Your task to perform on an android device: Clear the cart on costco. Add "razer blade" to the cart on costco, then select checkout. Image 0: 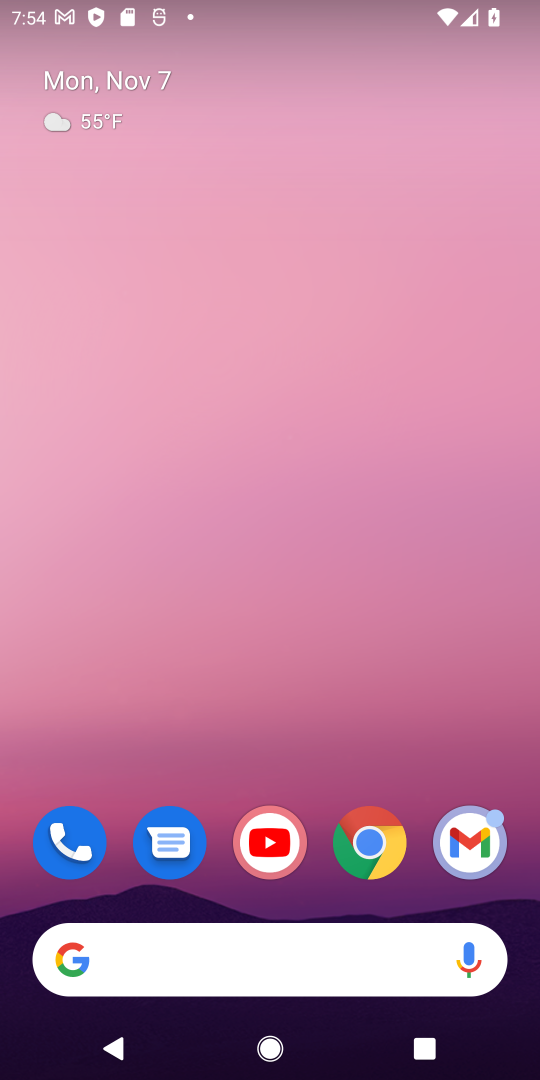
Step 0: press home button
Your task to perform on an android device: Clear the cart on costco. Add "razer blade" to the cart on costco, then select checkout. Image 1: 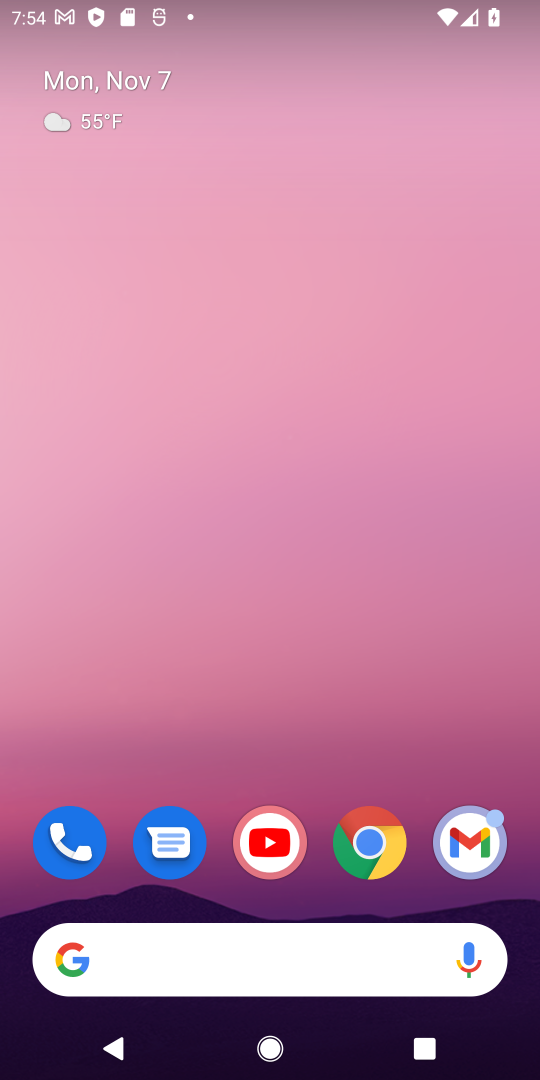
Step 1: click (374, 844)
Your task to perform on an android device: Clear the cart on costco. Add "razer blade" to the cart on costco, then select checkout. Image 2: 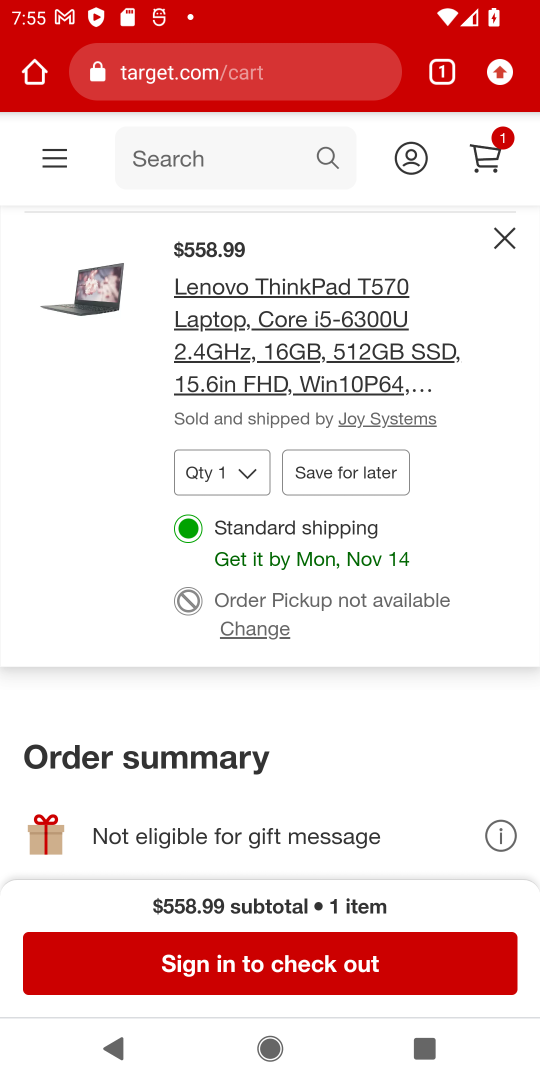
Step 2: click (193, 77)
Your task to perform on an android device: Clear the cart on costco. Add "razer blade" to the cart on costco, then select checkout. Image 3: 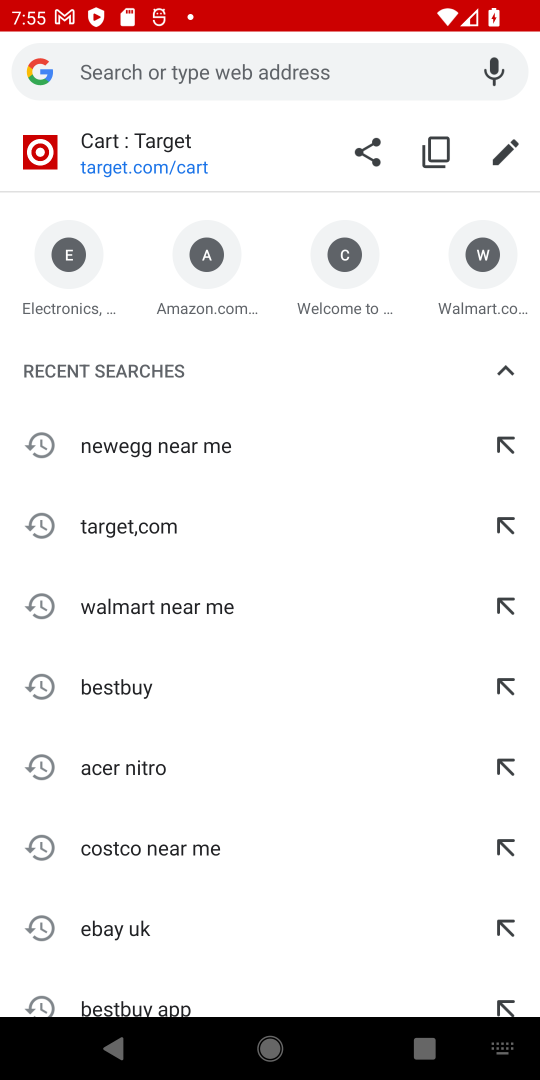
Step 3: type " costco"
Your task to perform on an android device: Clear the cart on costco. Add "razer blade" to the cart on costco, then select checkout. Image 4: 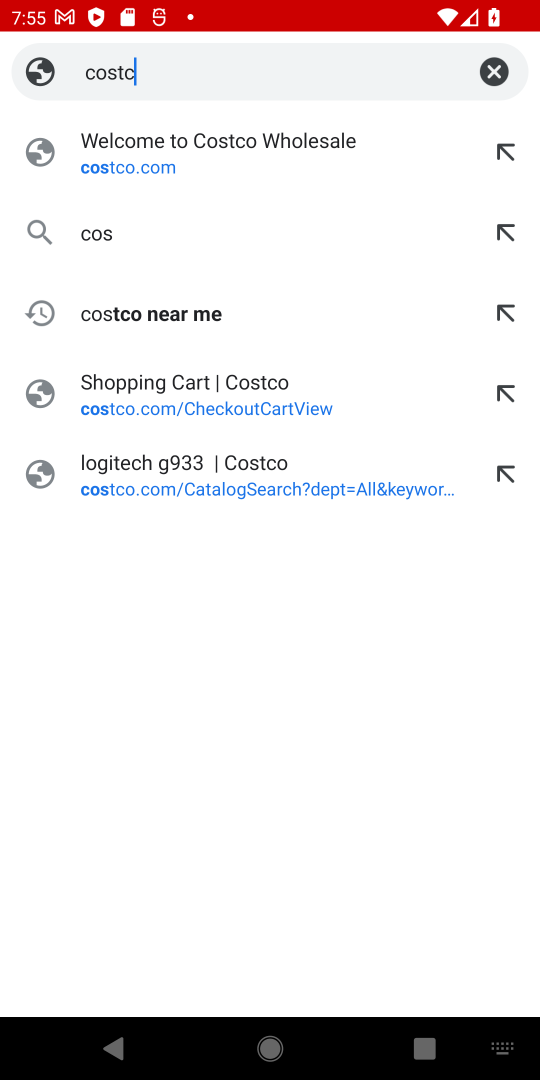
Step 4: press enter
Your task to perform on an android device: Clear the cart on costco. Add "razer blade" to the cart on costco, then select checkout. Image 5: 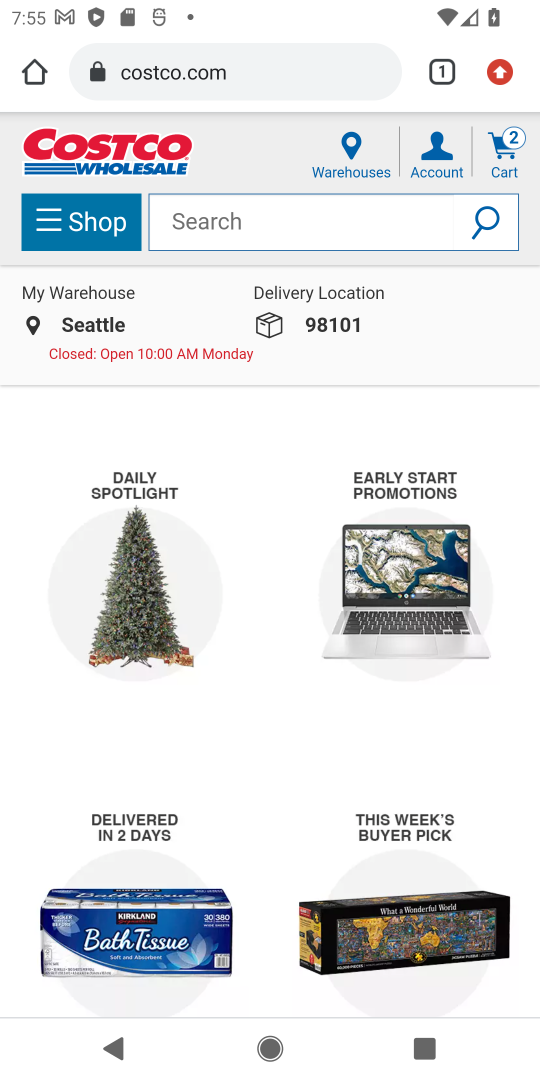
Step 5: click (285, 218)
Your task to perform on an android device: Clear the cart on costco. Add "razer blade" to the cart on costco, then select checkout. Image 6: 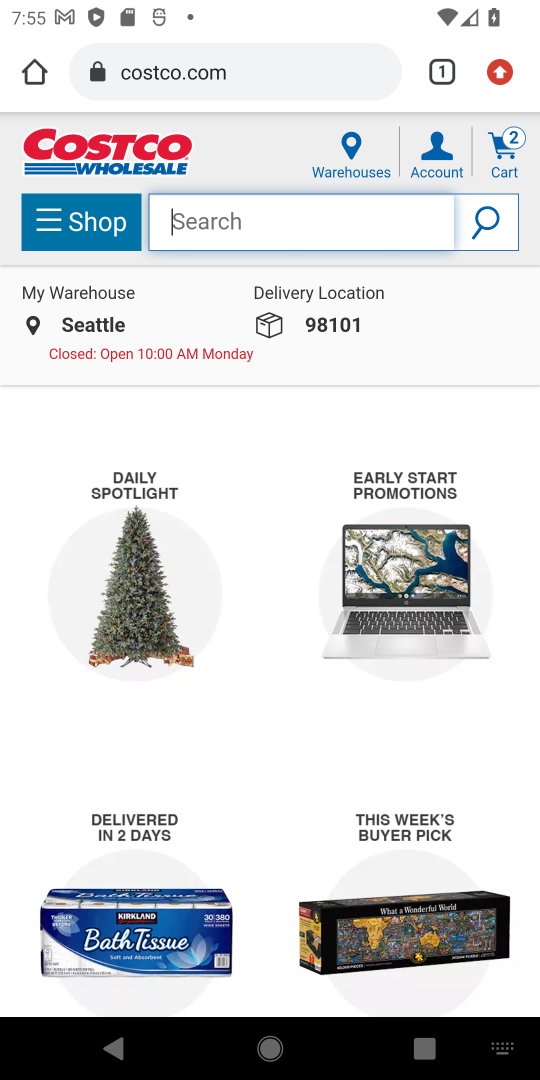
Step 6: type "razer blade"
Your task to perform on an android device: Clear the cart on costco. Add "razer blade" to the cart on costco, then select checkout. Image 7: 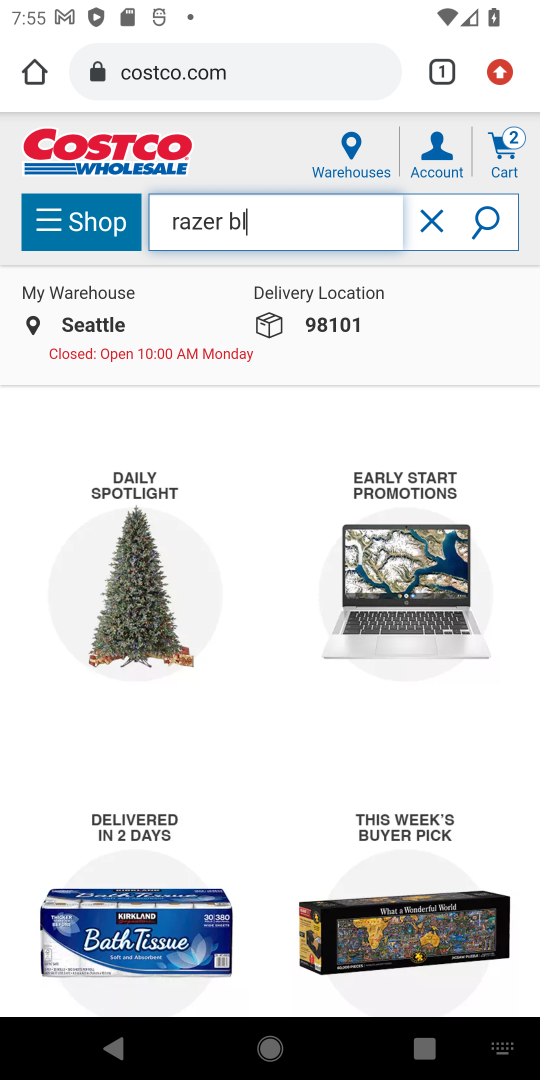
Step 7: press enter
Your task to perform on an android device: Clear the cart on costco. Add "razer blade" to the cart on costco, then select checkout. Image 8: 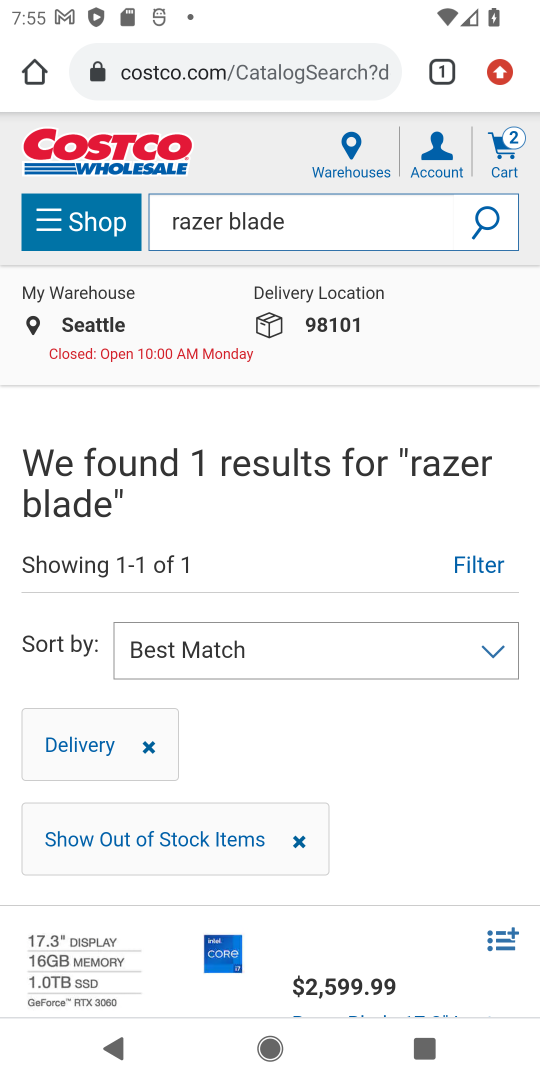
Step 8: drag from (375, 781) to (425, 489)
Your task to perform on an android device: Clear the cart on costco. Add "razer blade" to the cart on costco, then select checkout. Image 9: 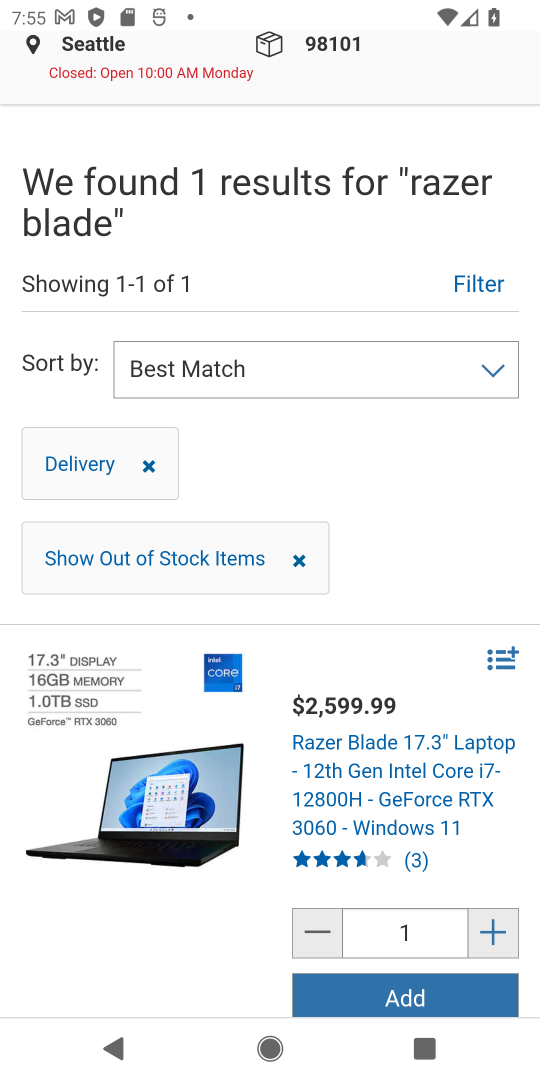
Step 9: click (421, 1004)
Your task to perform on an android device: Clear the cart on costco. Add "razer blade" to the cart on costco, then select checkout. Image 10: 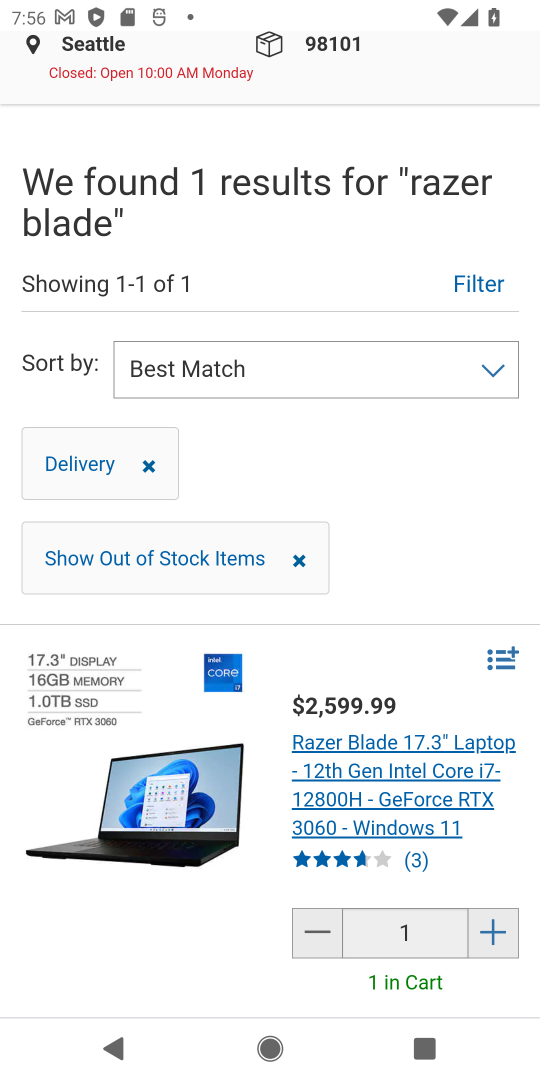
Step 10: drag from (401, 236) to (433, 871)
Your task to perform on an android device: Clear the cart on costco. Add "razer blade" to the cart on costco, then select checkout. Image 11: 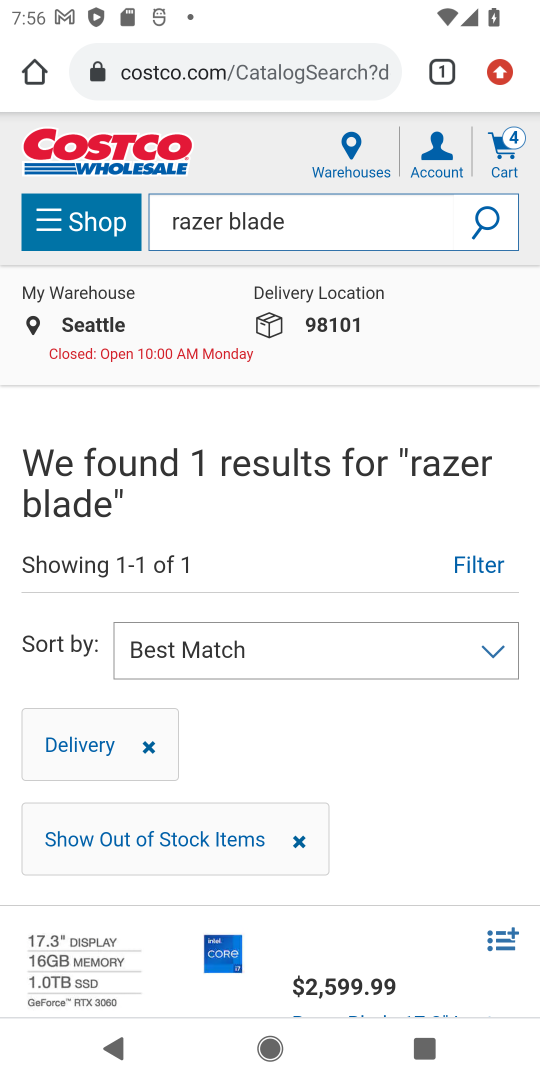
Step 11: click (502, 141)
Your task to perform on an android device: Clear the cart on costco. Add "razer blade" to the cart on costco, then select checkout. Image 12: 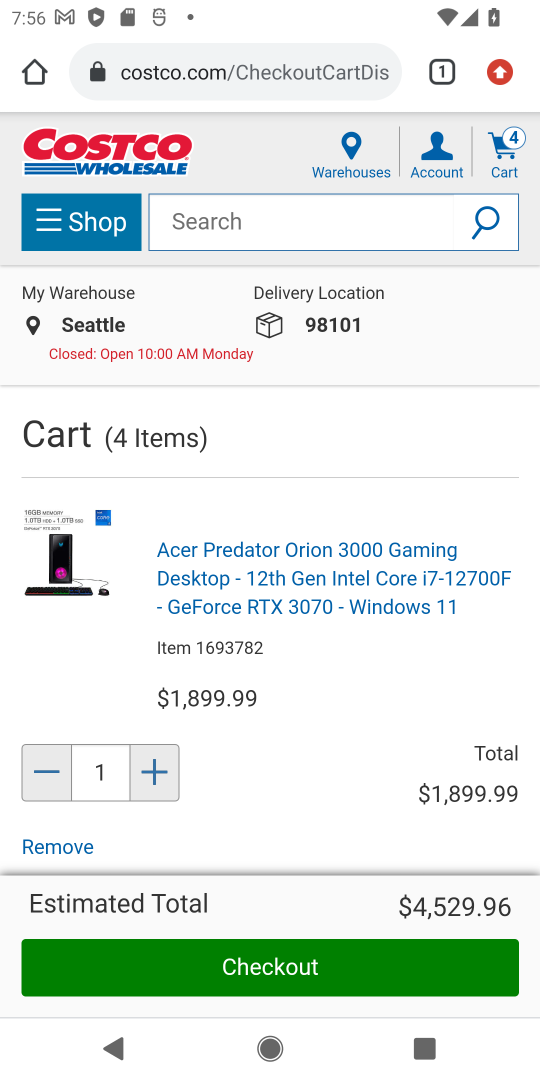
Step 12: click (64, 842)
Your task to perform on an android device: Clear the cart on costco. Add "razer blade" to the cart on costco, then select checkout. Image 13: 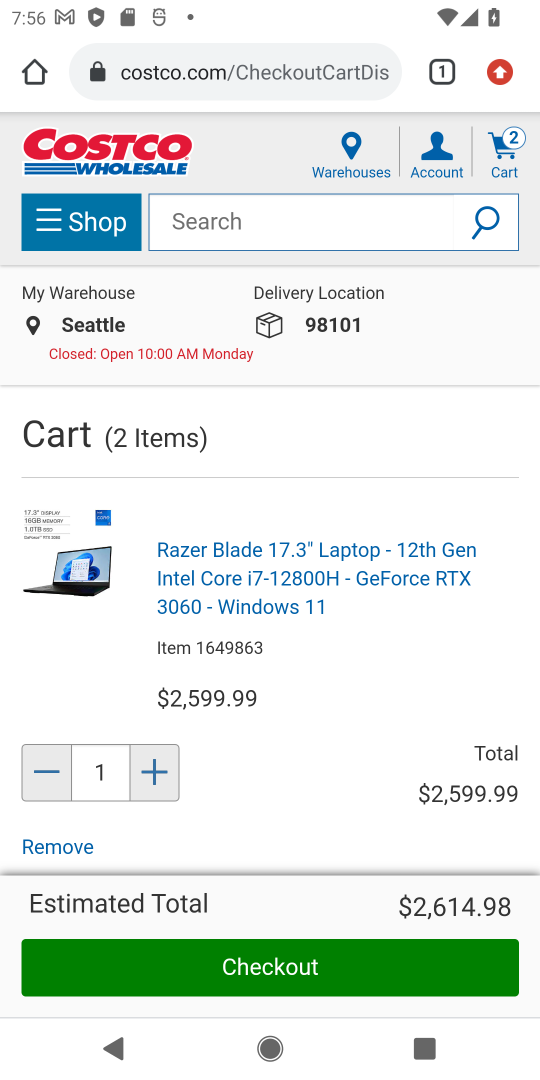
Step 13: drag from (272, 738) to (436, 168)
Your task to perform on an android device: Clear the cart on costco. Add "razer blade" to the cart on costco, then select checkout. Image 14: 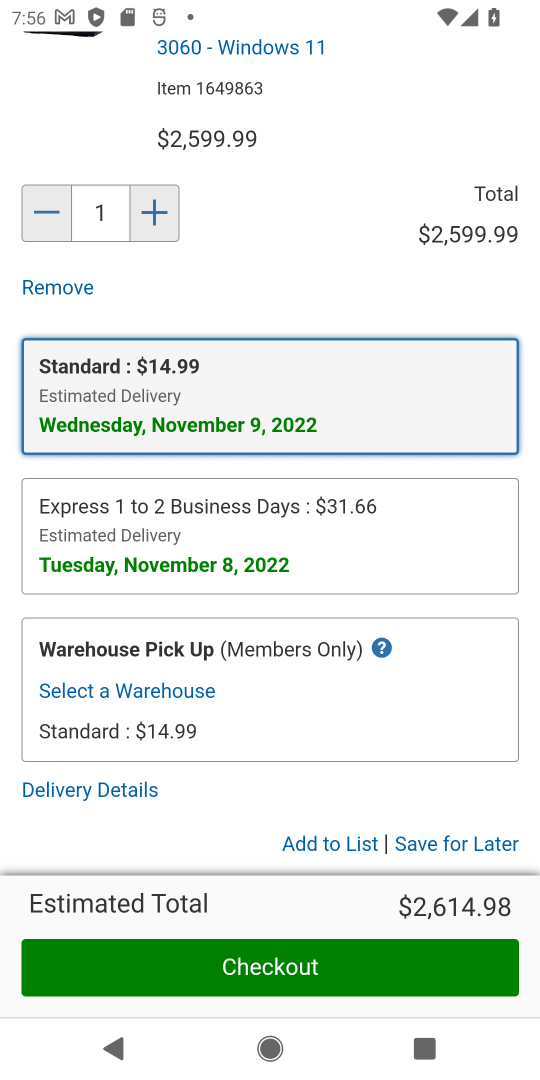
Step 14: drag from (263, 707) to (443, 220)
Your task to perform on an android device: Clear the cart on costco. Add "razer blade" to the cart on costco, then select checkout. Image 15: 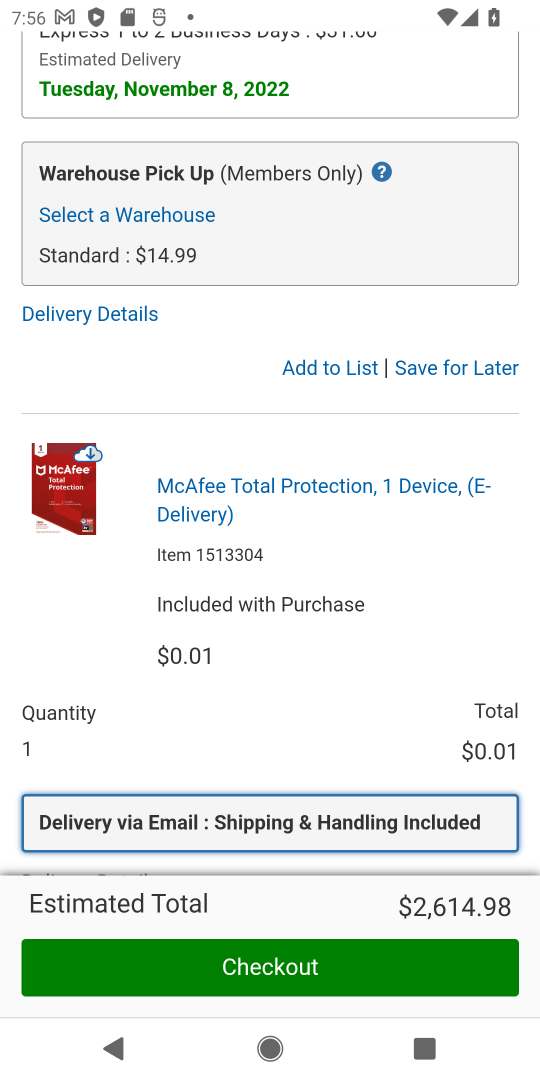
Step 15: drag from (257, 763) to (428, 296)
Your task to perform on an android device: Clear the cart on costco. Add "razer blade" to the cart on costco, then select checkout. Image 16: 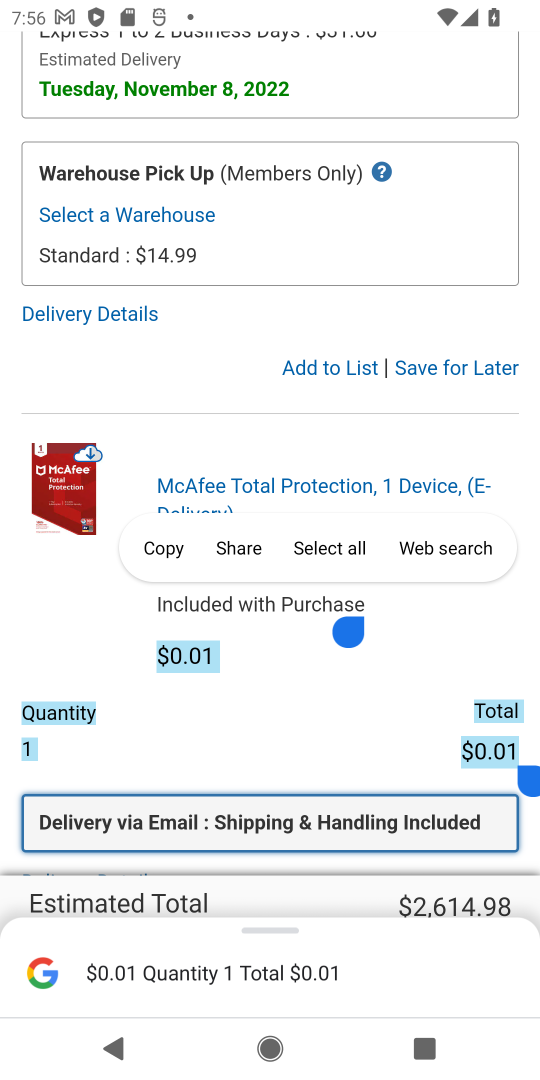
Step 16: click (64, 643)
Your task to perform on an android device: Clear the cart on costco. Add "razer blade" to the cart on costco, then select checkout. Image 17: 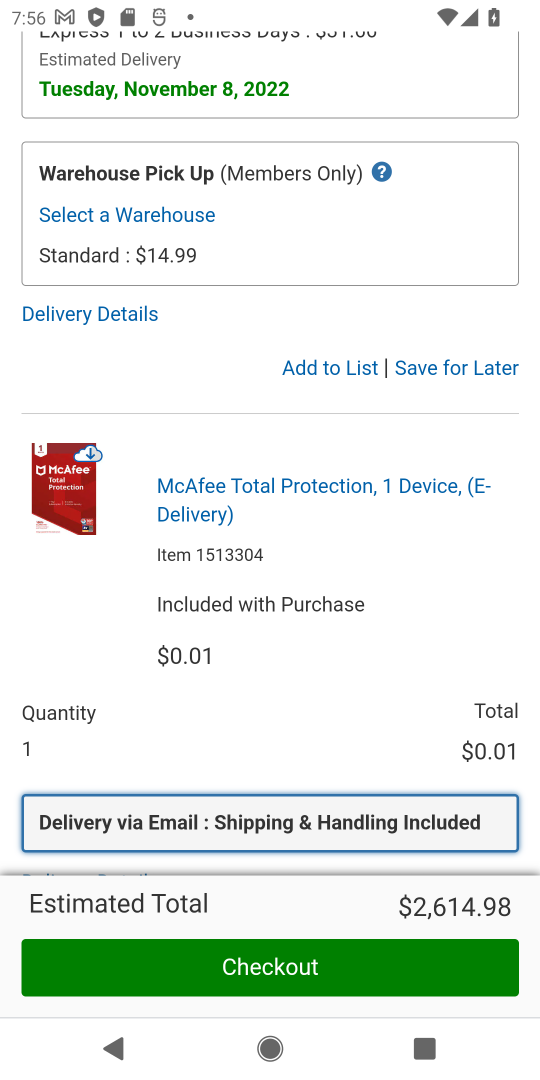
Step 17: drag from (253, 763) to (473, 392)
Your task to perform on an android device: Clear the cart on costco. Add "razer blade" to the cart on costco, then select checkout. Image 18: 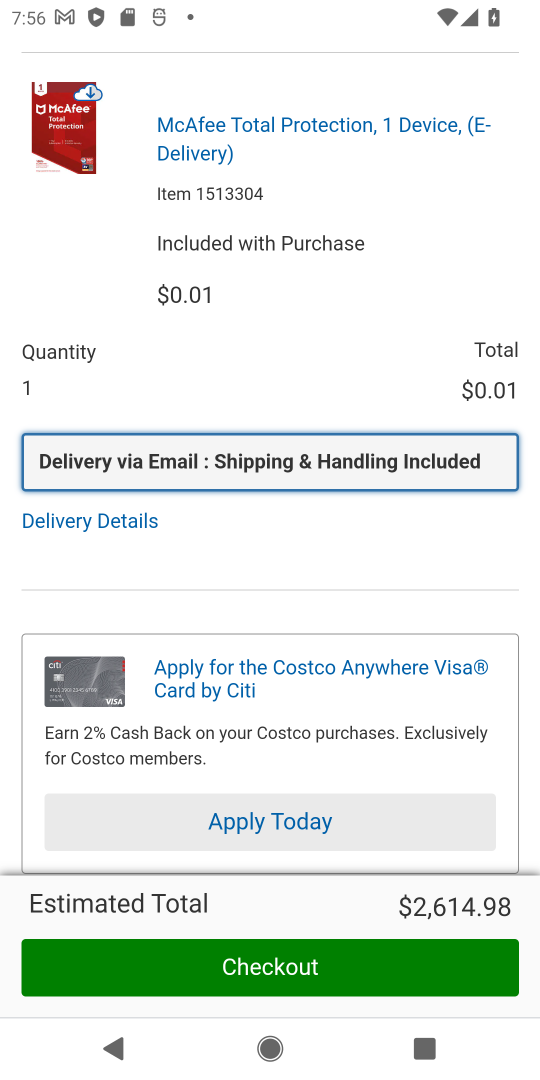
Step 18: drag from (156, 722) to (415, 5)
Your task to perform on an android device: Clear the cart on costco. Add "razer blade" to the cart on costco, then select checkout. Image 19: 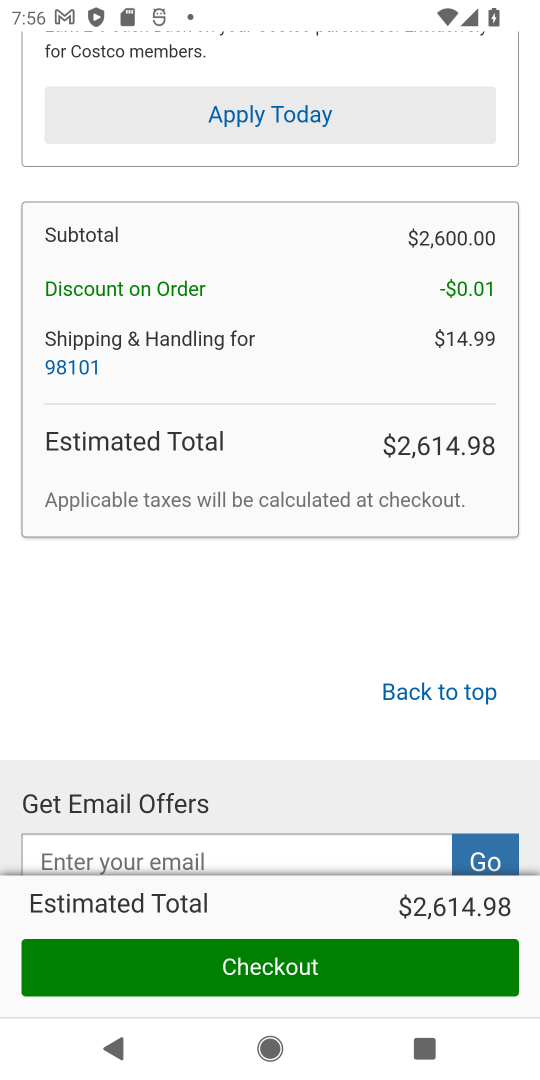
Step 19: drag from (354, 245) to (268, 884)
Your task to perform on an android device: Clear the cart on costco. Add "razer blade" to the cart on costco, then select checkout. Image 20: 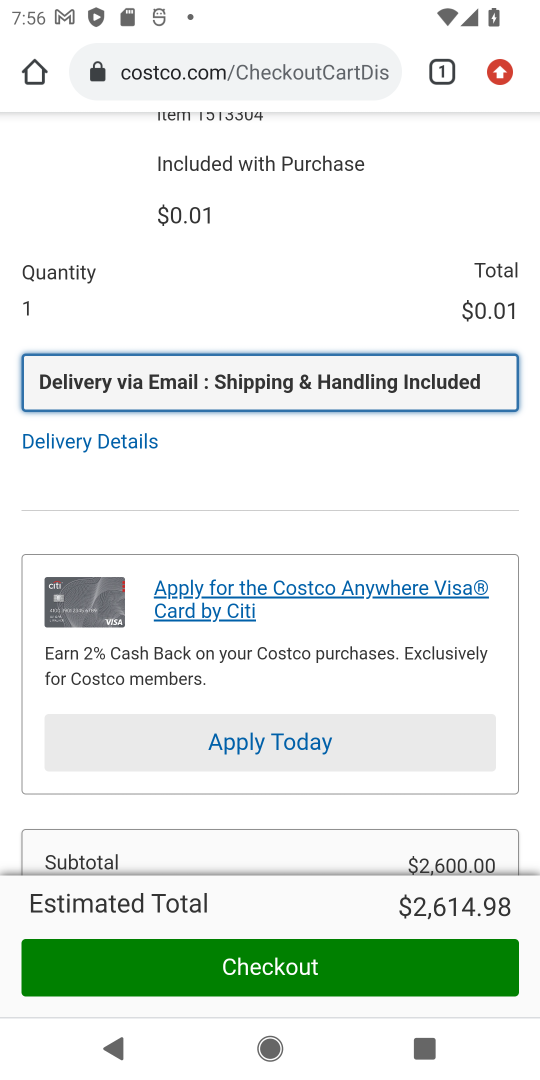
Step 20: drag from (312, 230) to (307, 834)
Your task to perform on an android device: Clear the cart on costco. Add "razer blade" to the cart on costco, then select checkout. Image 21: 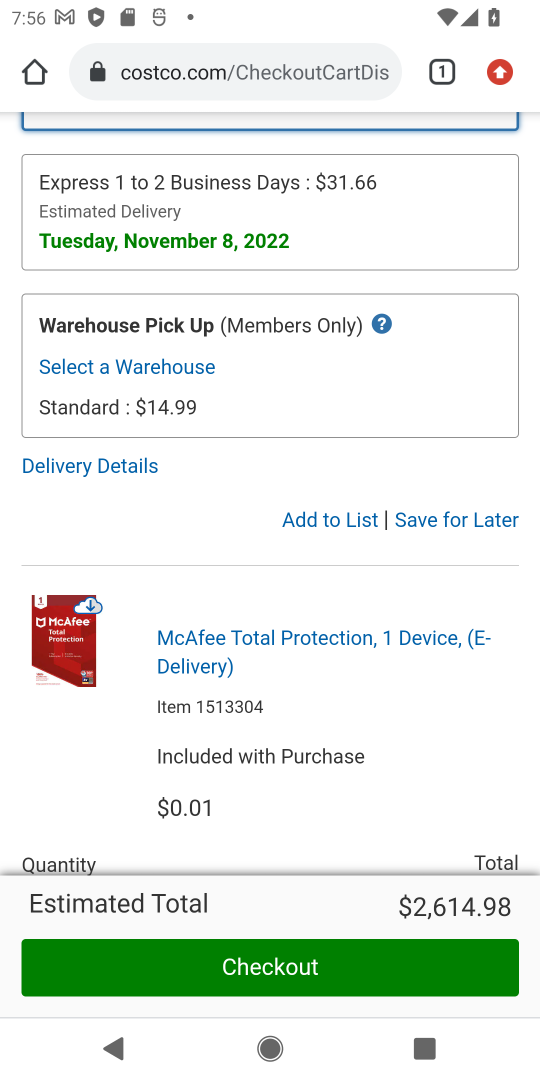
Step 21: drag from (335, 199) to (355, 910)
Your task to perform on an android device: Clear the cart on costco. Add "razer blade" to the cart on costco, then select checkout. Image 22: 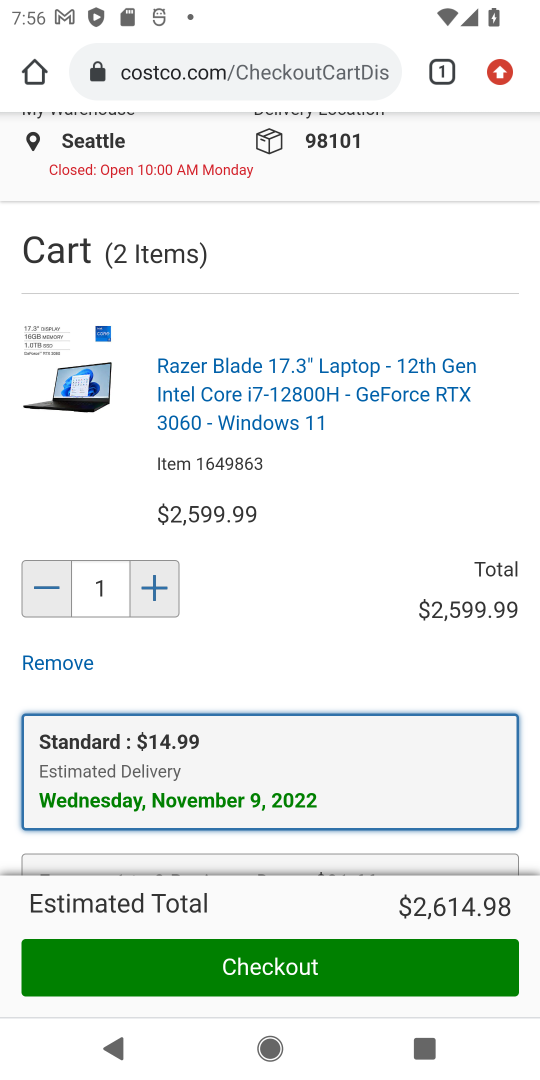
Step 22: click (274, 957)
Your task to perform on an android device: Clear the cart on costco. Add "razer blade" to the cart on costco, then select checkout. Image 23: 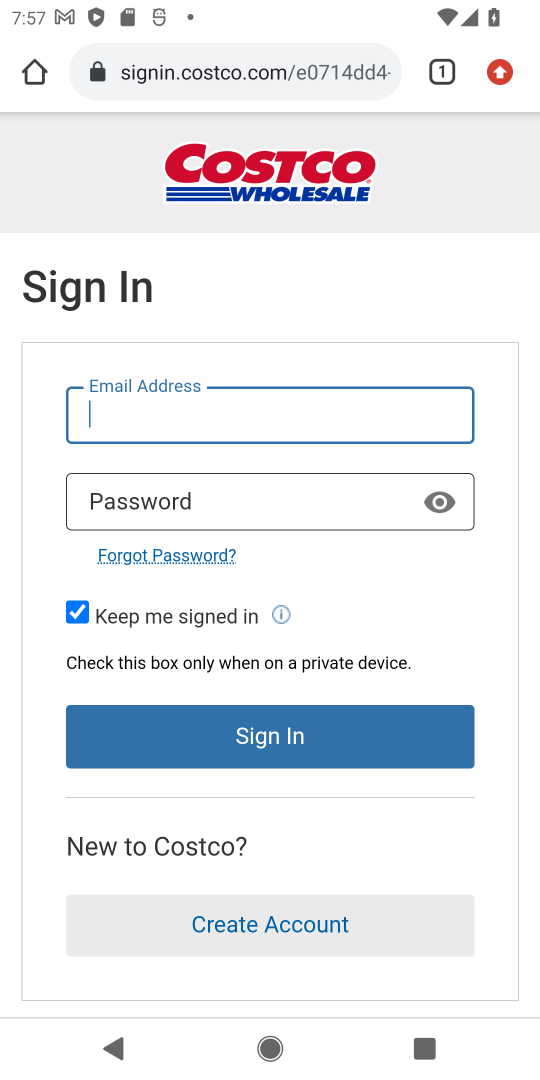
Step 23: task complete